Your task to perform on an android device: read, delete, or share a saved page in the chrome app Image 0: 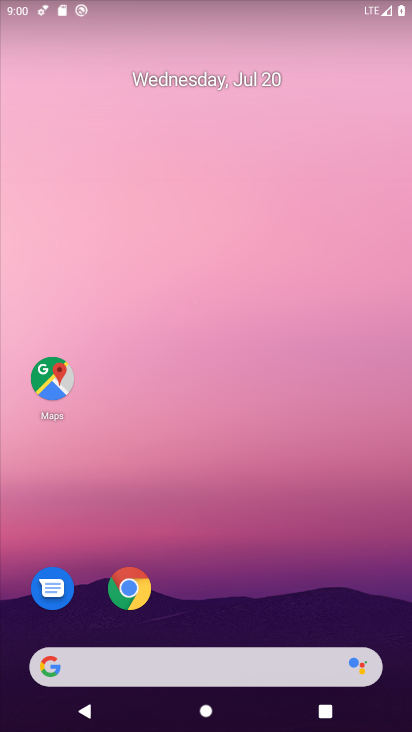
Step 0: click (124, 581)
Your task to perform on an android device: read, delete, or share a saved page in the chrome app Image 1: 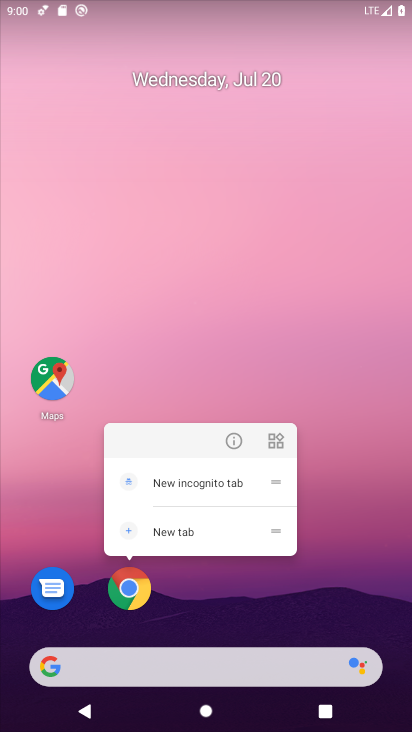
Step 1: click (124, 581)
Your task to perform on an android device: read, delete, or share a saved page in the chrome app Image 2: 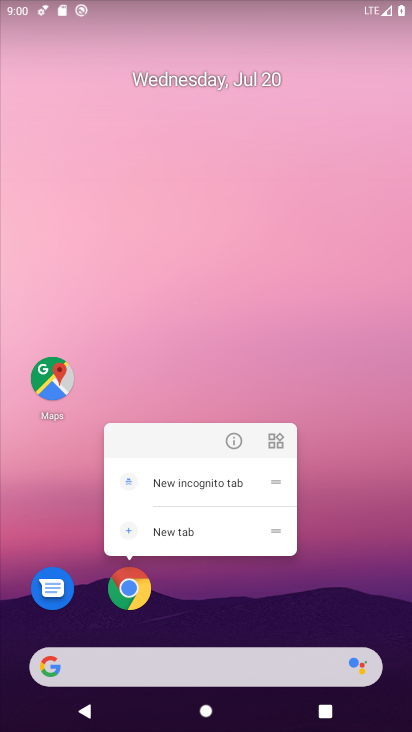
Step 2: click (126, 581)
Your task to perform on an android device: read, delete, or share a saved page in the chrome app Image 3: 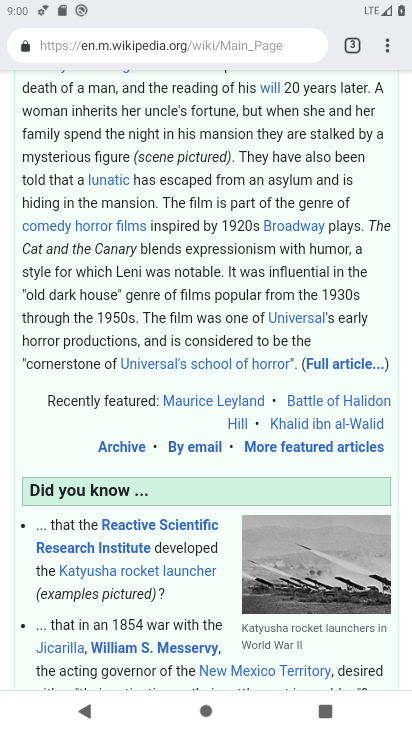
Step 3: click (383, 42)
Your task to perform on an android device: read, delete, or share a saved page in the chrome app Image 4: 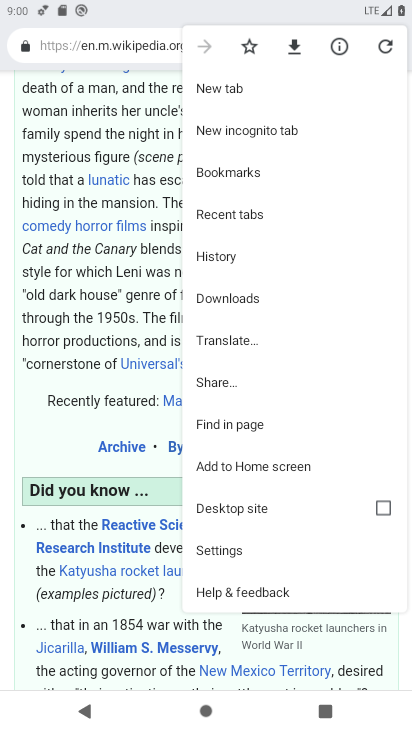
Step 4: click (259, 297)
Your task to perform on an android device: read, delete, or share a saved page in the chrome app Image 5: 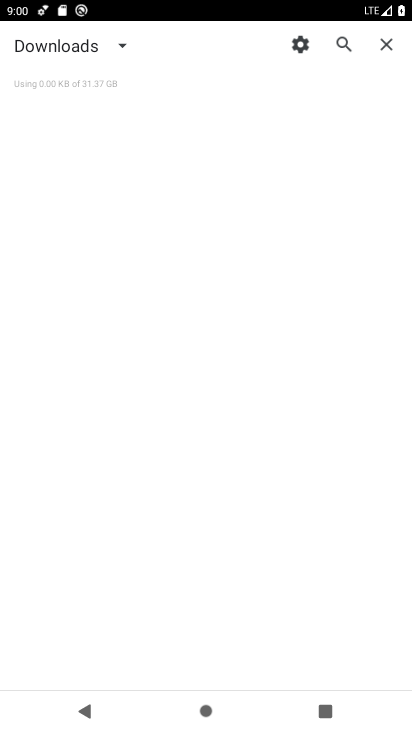
Step 5: task complete